Your task to perform on an android device: See recent photos Image 0: 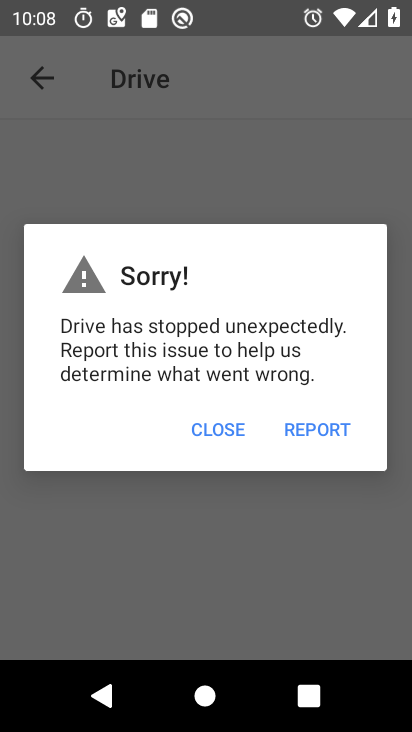
Step 0: press home button
Your task to perform on an android device: See recent photos Image 1: 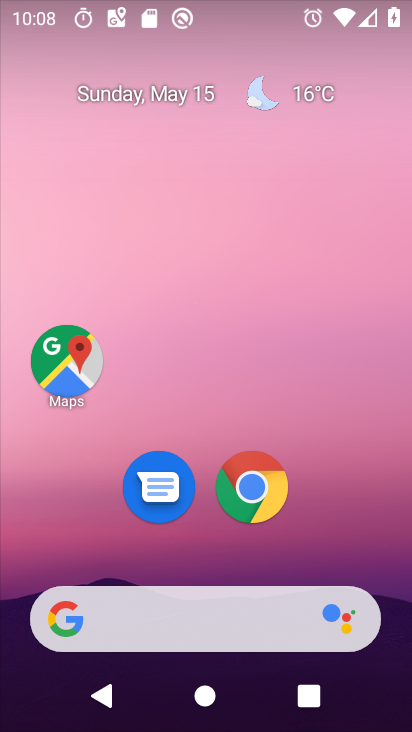
Step 1: drag from (382, 566) to (388, 101)
Your task to perform on an android device: See recent photos Image 2: 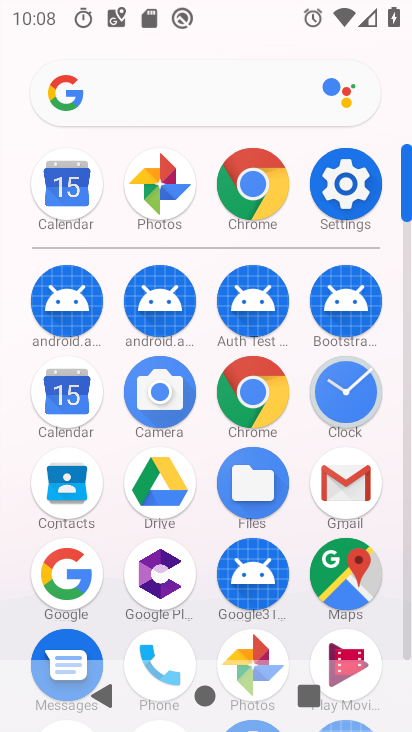
Step 2: click (254, 645)
Your task to perform on an android device: See recent photos Image 3: 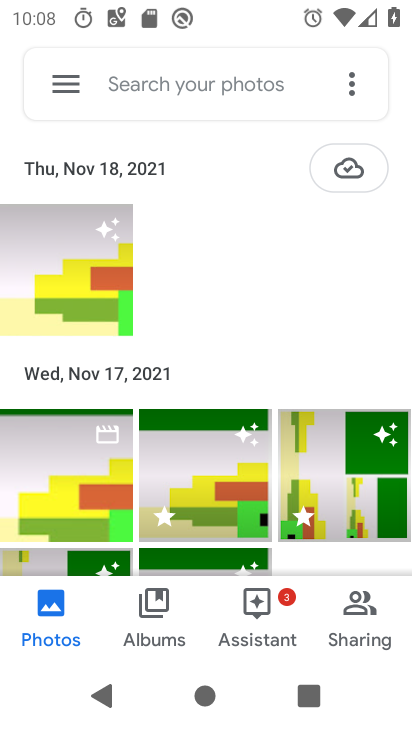
Step 3: task complete